Your task to perform on an android device: toggle notification dots Image 0: 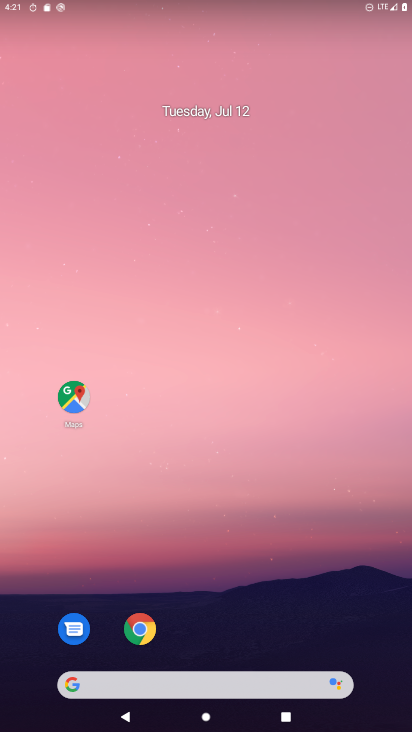
Step 0: press home button
Your task to perform on an android device: toggle notification dots Image 1: 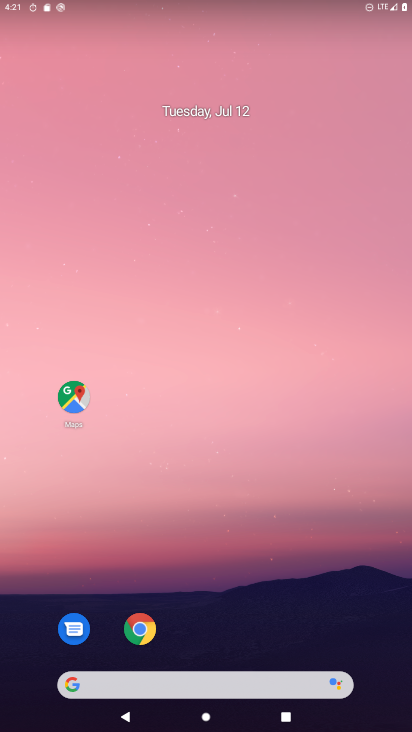
Step 1: press home button
Your task to perform on an android device: toggle notification dots Image 2: 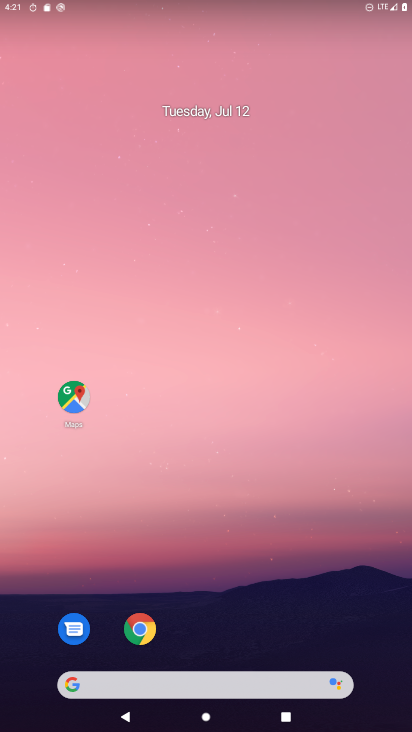
Step 2: press home button
Your task to perform on an android device: toggle notification dots Image 3: 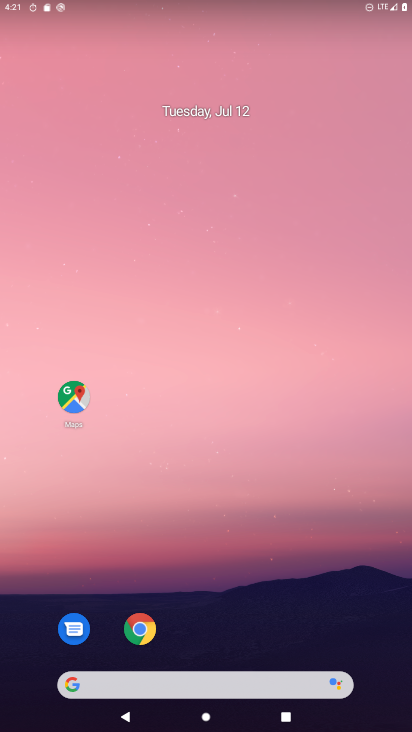
Step 3: drag from (255, 651) to (347, 1)
Your task to perform on an android device: toggle notification dots Image 4: 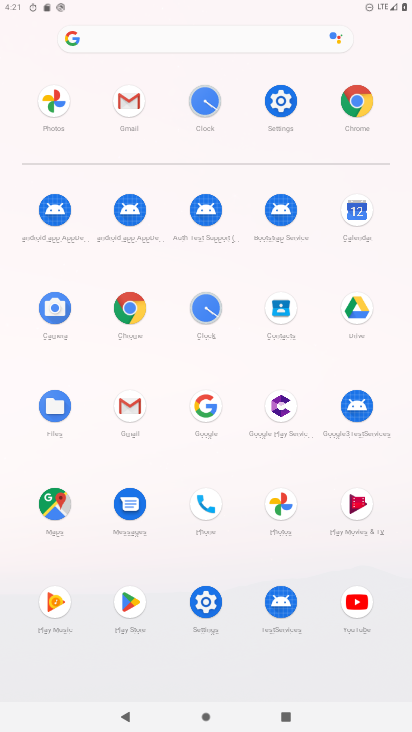
Step 4: click (289, 113)
Your task to perform on an android device: toggle notification dots Image 5: 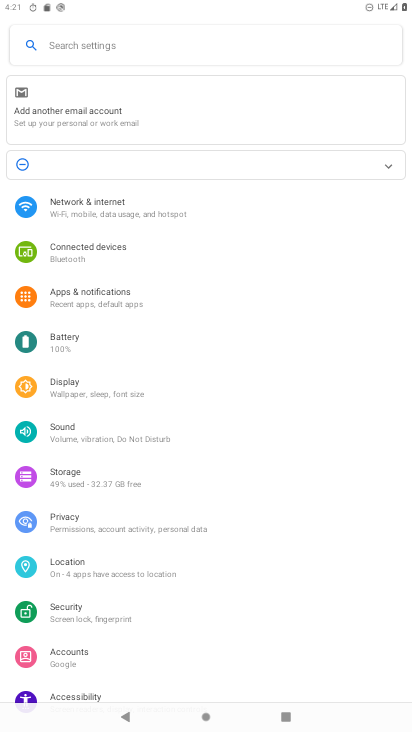
Step 5: click (134, 296)
Your task to perform on an android device: toggle notification dots Image 6: 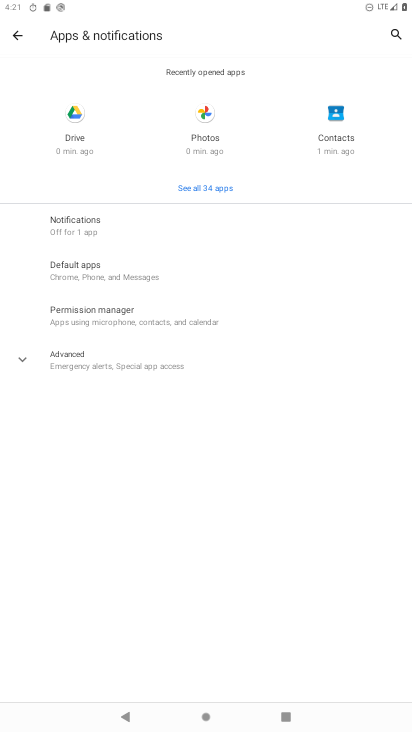
Step 6: click (87, 227)
Your task to perform on an android device: toggle notification dots Image 7: 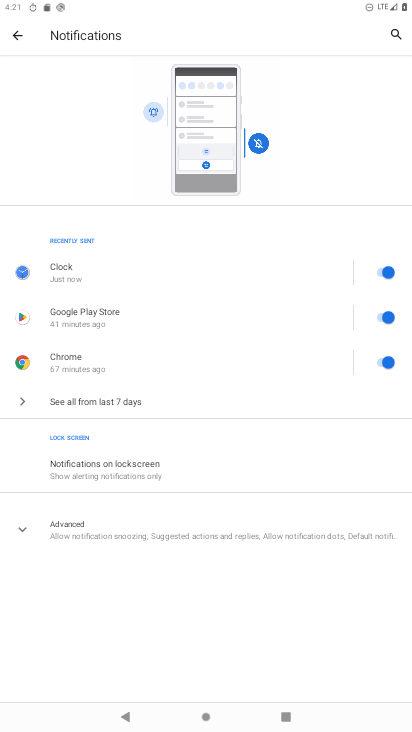
Step 7: click (45, 527)
Your task to perform on an android device: toggle notification dots Image 8: 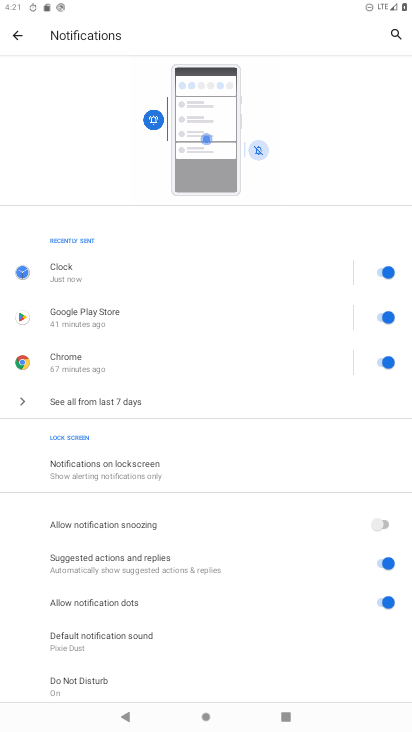
Step 8: click (66, 602)
Your task to perform on an android device: toggle notification dots Image 9: 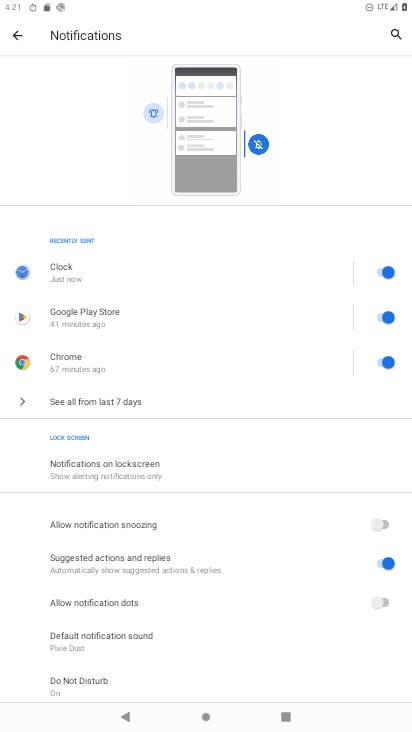
Step 9: task complete